Your task to perform on an android device: set default search engine in the chrome app Image 0: 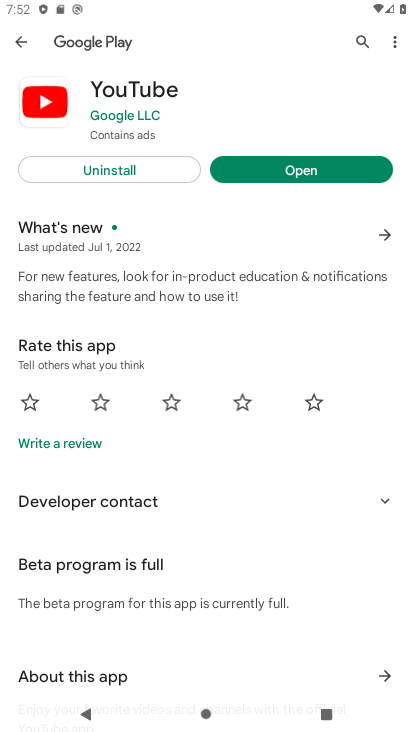
Step 0: press home button
Your task to perform on an android device: set default search engine in the chrome app Image 1: 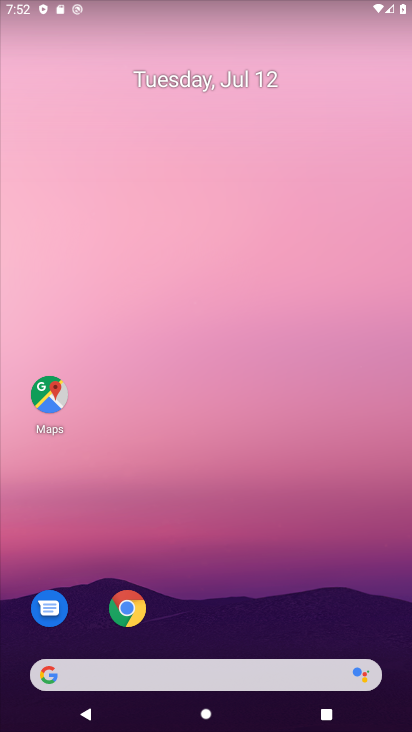
Step 1: click (126, 613)
Your task to perform on an android device: set default search engine in the chrome app Image 2: 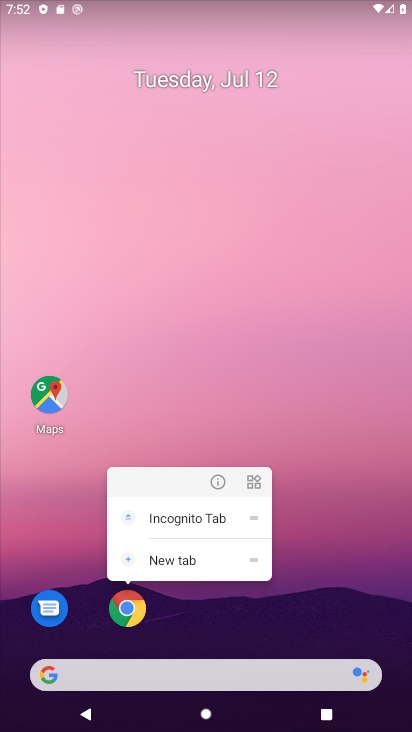
Step 2: click (126, 614)
Your task to perform on an android device: set default search engine in the chrome app Image 3: 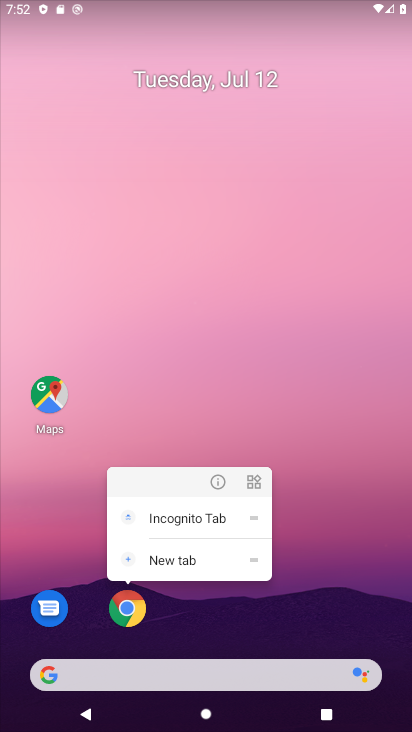
Step 3: click (126, 613)
Your task to perform on an android device: set default search engine in the chrome app Image 4: 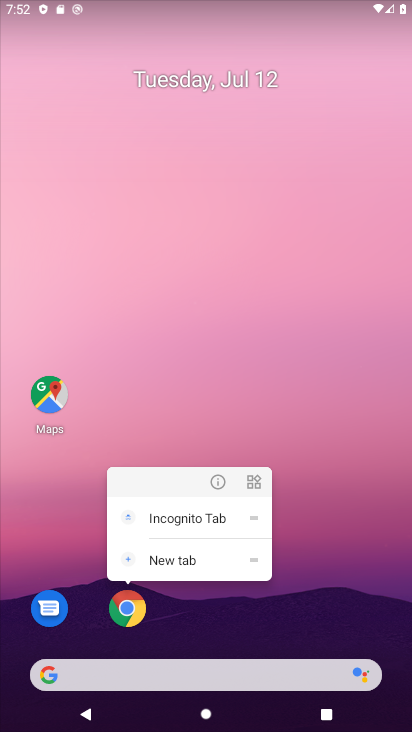
Step 4: click (120, 611)
Your task to perform on an android device: set default search engine in the chrome app Image 5: 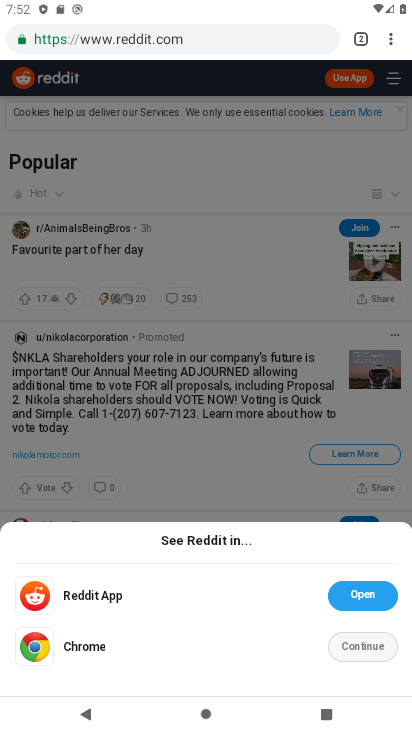
Step 5: drag from (390, 40) to (280, 465)
Your task to perform on an android device: set default search engine in the chrome app Image 6: 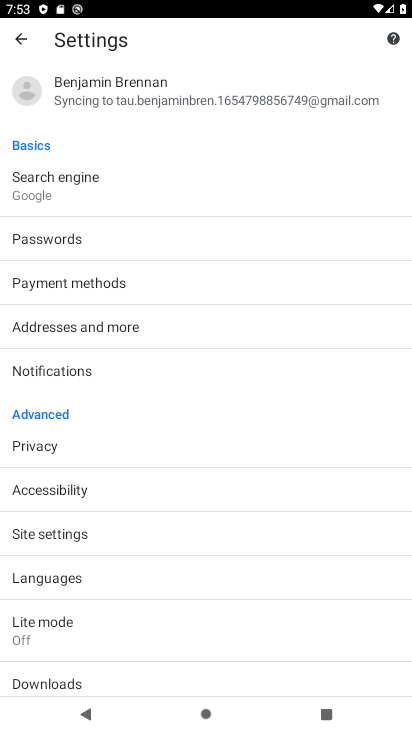
Step 6: click (72, 175)
Your task to perform on an android device: set default search engine in the chrome app Image 7: 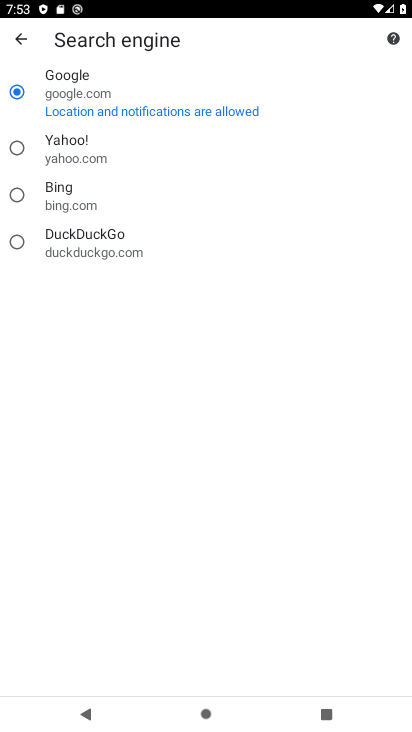
Step 7: click (19, 152)
Your task to perform on an android device: set default search engine in the chrome app Image 8: 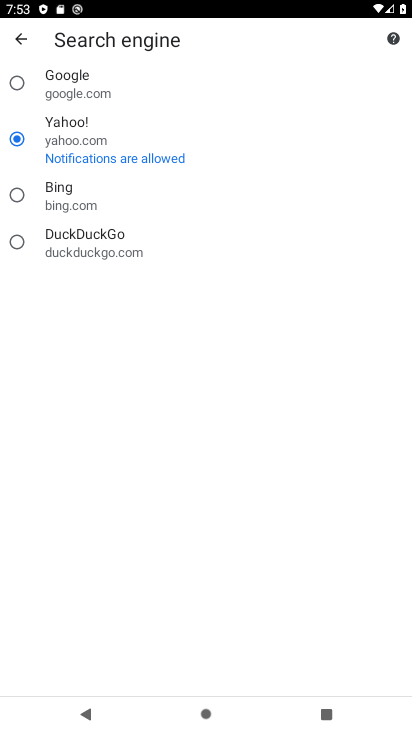
Step 8: task complete